Your task to perform on an android device: toggle show notifications on the lock screen Image 0: 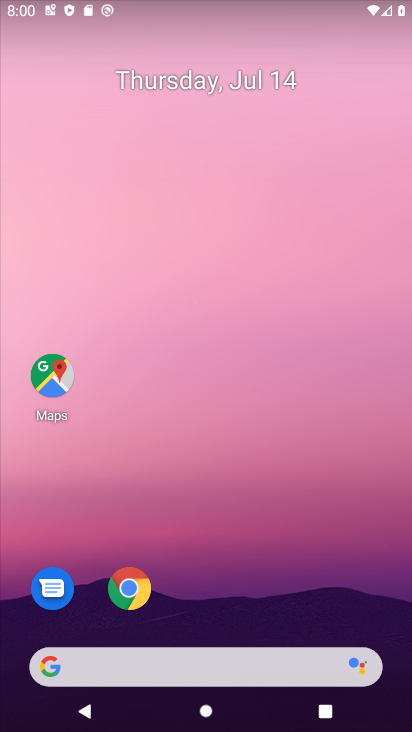
Step 0: drag from (305, 509) to (232, 0)
Your task to perform on an android device: toggle show notifications on the lock screen Image 1: 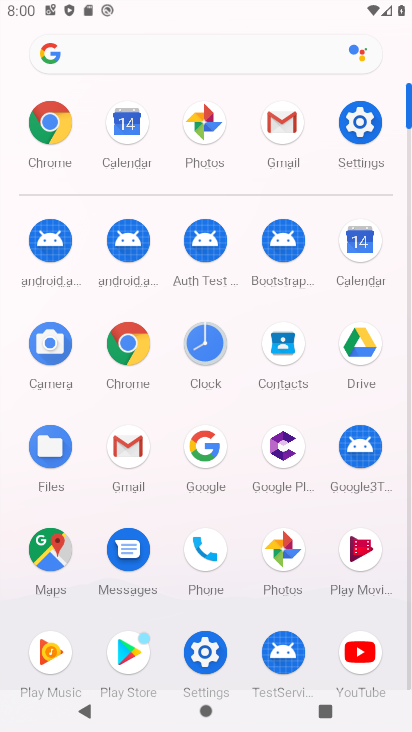
Step 1: click (357, 115)
Your task to perform on an android device: toggle show notifications on the lock screen Image 2: 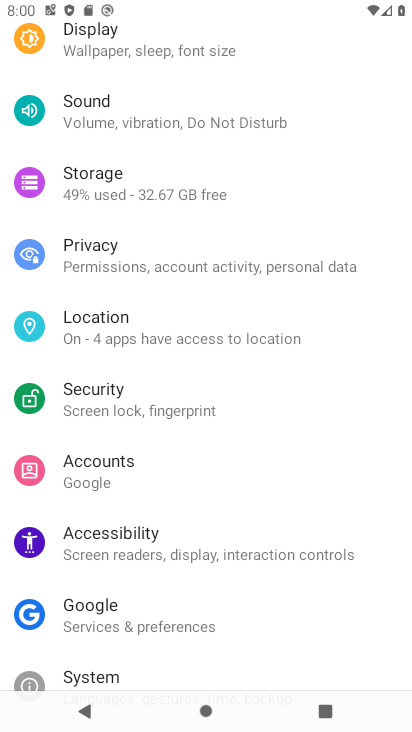
Step 2: drag from (217, 155) to (211, 679)
Your task to perform on an android device: toggle show notifications on the lock screen Image 3: 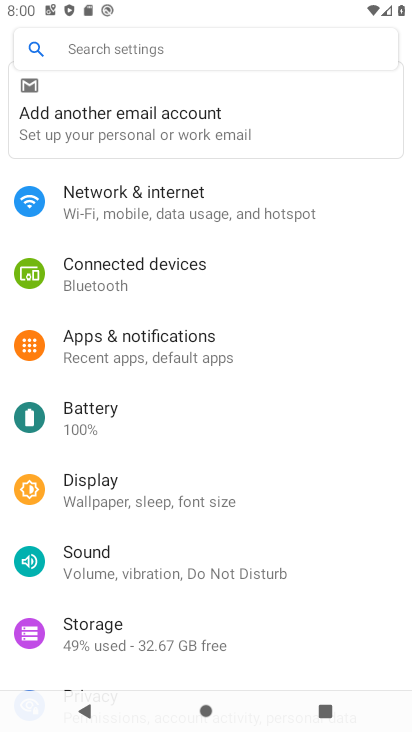
Step 3: click (170, 370)
Your task to perform on an android device: toggle show notifications on the lock screen Image 4: 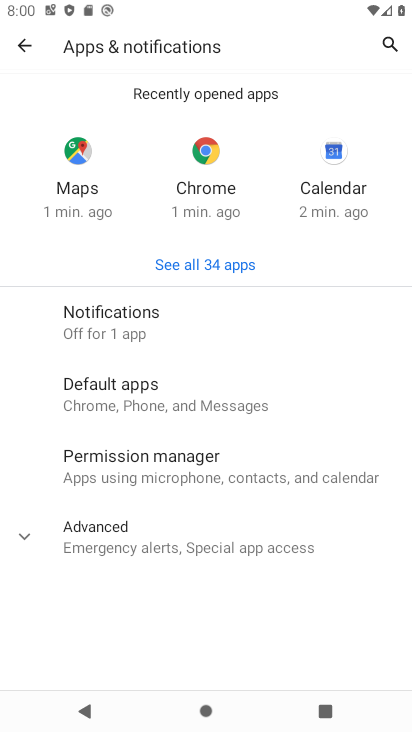
Step 4: click (152, 342)
Your task to perform on an android device: toggle show notifications on the lock screen Image 5: 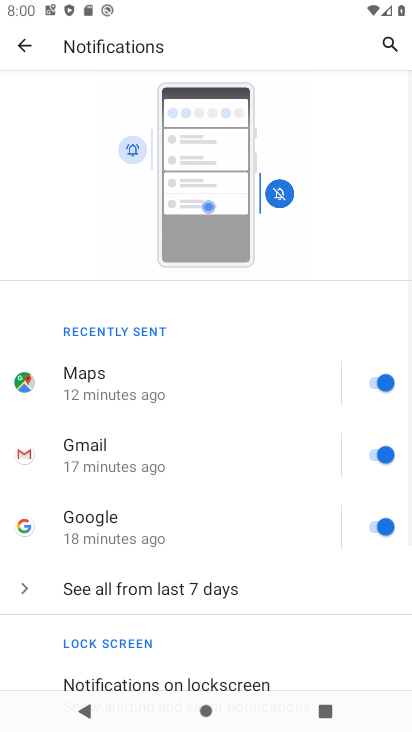
Step 5: drag from (247, 486) to (232, 182)
Your task to perform on an android device: toggle show notifications on the lock screen Image 6: 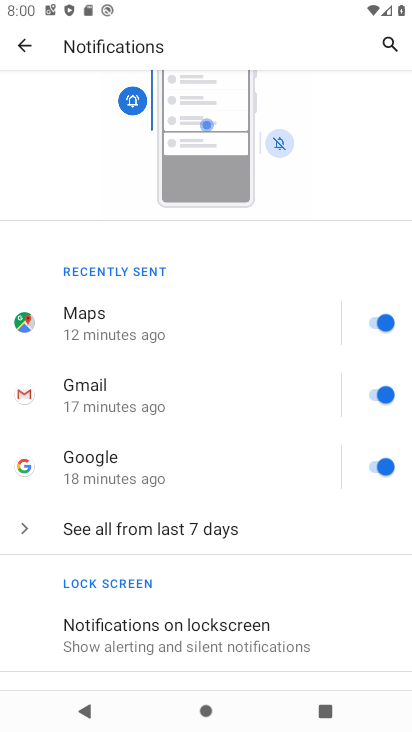
Step 6: click (180, 628)
Your task to perform on an android device: toggle show notifications on the lock screen Image 7: 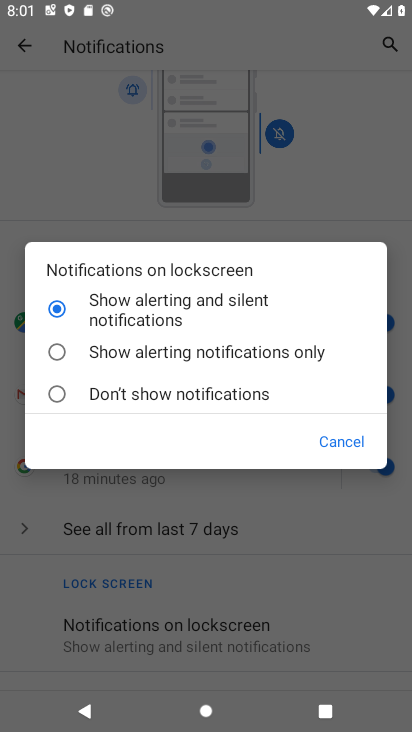
Step 7: click (205, 364)
Your task to perform on an android device: toggle show notifications on the lock screen Image 8: 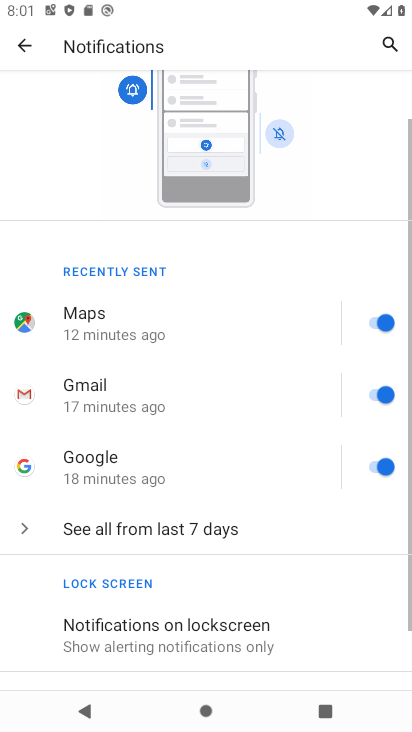
Step 8: task complete